Your task to perform on an android device: What is the recent news? Image 0: 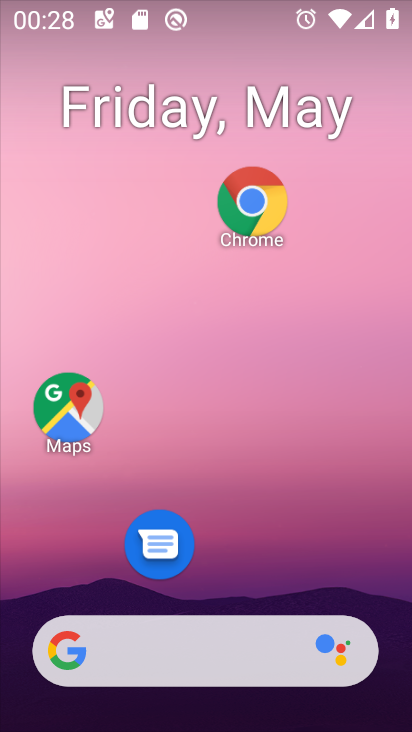
Step 0: click (392, 346)
Your task to perform on an android device: What is the recent news? Image 1: 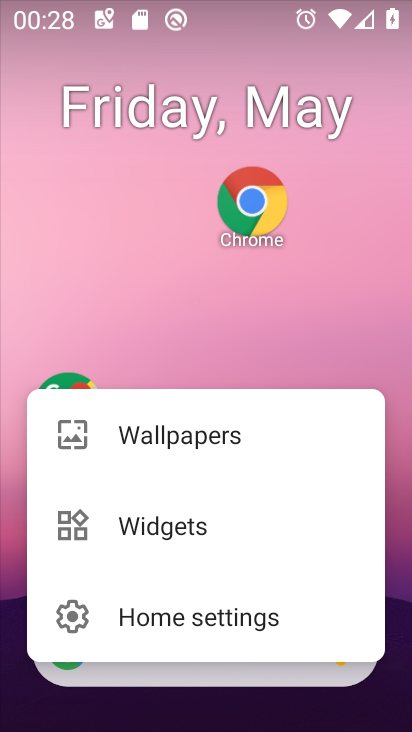
Step 1: click (136, 317)
Your task to perform on an android device: What is the recent news? Image 2: 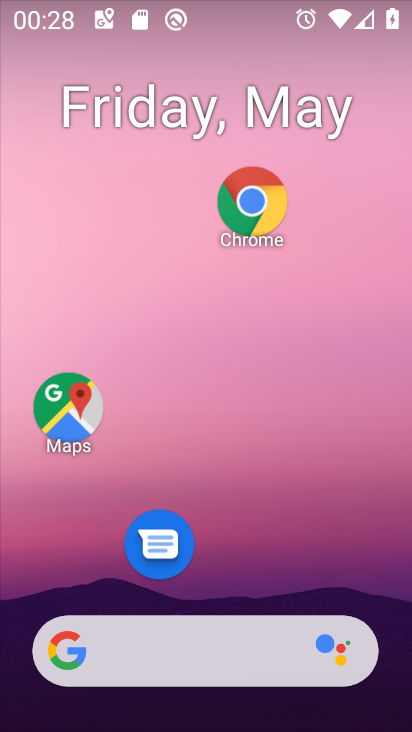
Step 2: task complete